Your task to perform on an android device: turn off smart reply in the gmail app Image 0: 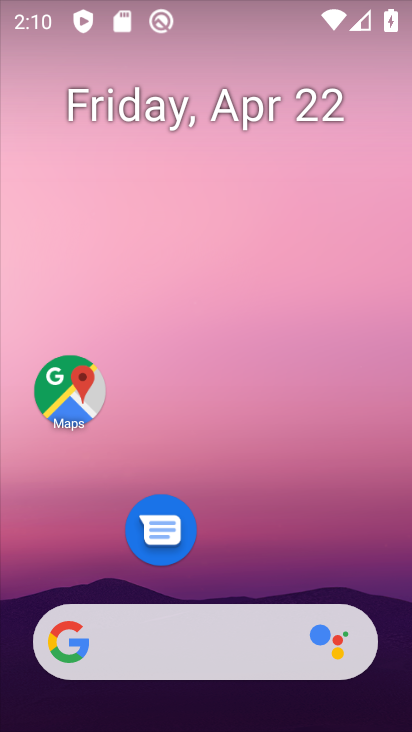
Step 0: drag from (248, 558) to (332, 5)
Your task to perform on an android device: turn off smart reply in the gmail app Image 1: 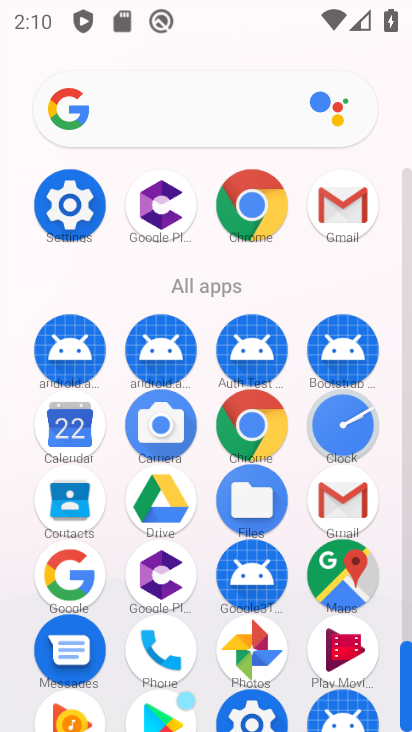
Step 1: click (354, 489)
Your task to perform on an android device: turn off smart reply in the gmail app Image 2: 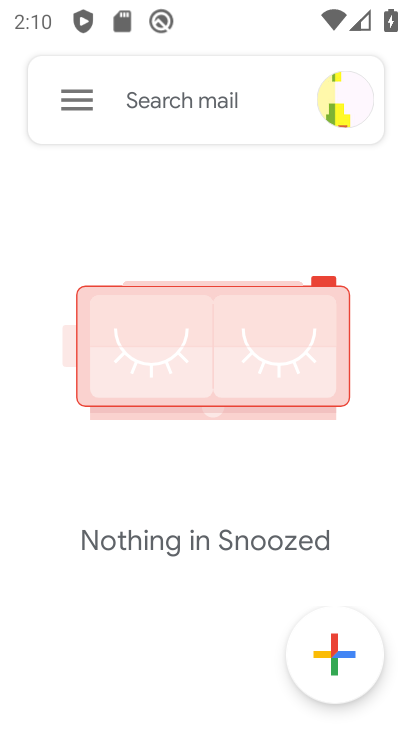
Step 2: click (70, 93)
Your task to perform on an android device: turn off smart reply in the gmail app Image 3: 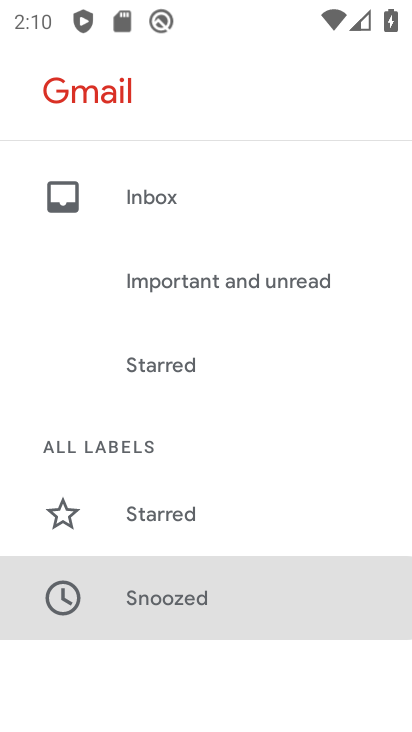
Step 3: drag from (157, 563) to (142, 153)
Your task to perform on an android device: turn off smart reply in the gmail app Image 4: 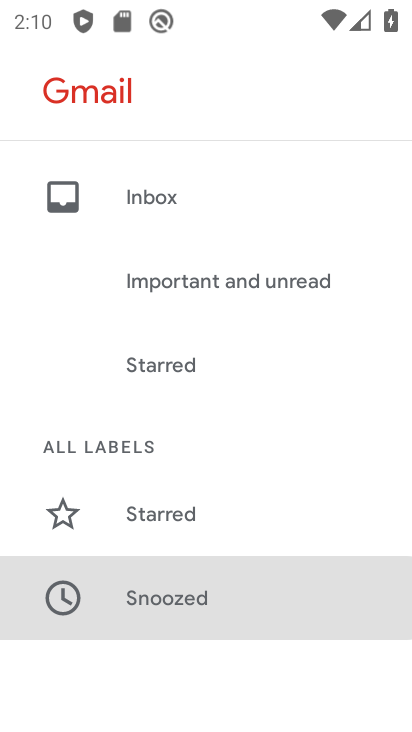
Step 4: drag from (212, 463) to (200, 53)
Your task to perform on an android device: turn off smart reply in the gmail app Image 5: 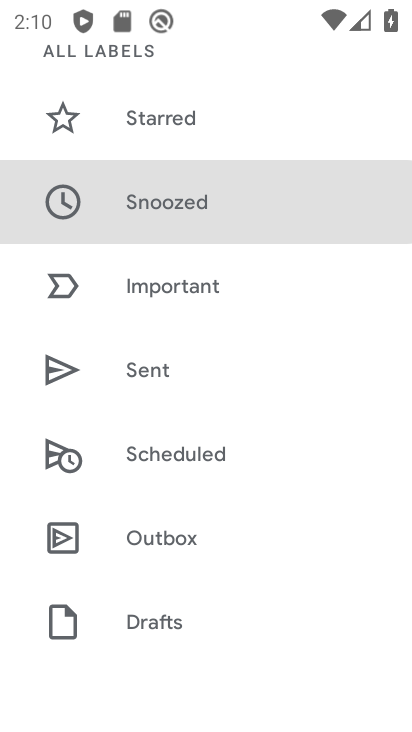
Step 5: drag from (161, 547) to (188, 22)
Your task to perform on an android device: turn off smart reply in the gmail app Image 6: 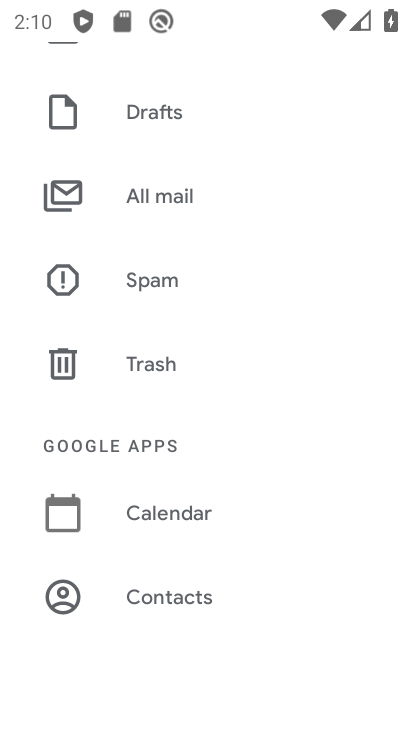
Step 6: drag from (181, 547) to (172, 114)
Your task to perform on an android device: turn off smart reply in the gmail app Image 7: 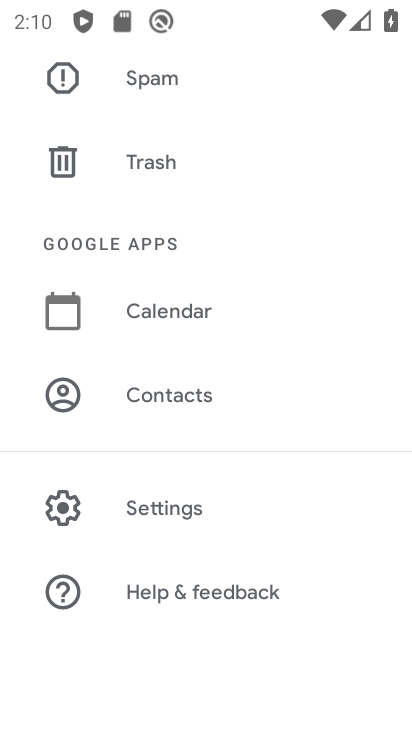
Step 7: click (162, 504)
Your task to perform on an android device: turn off smart reply in the gmail app Image 8: 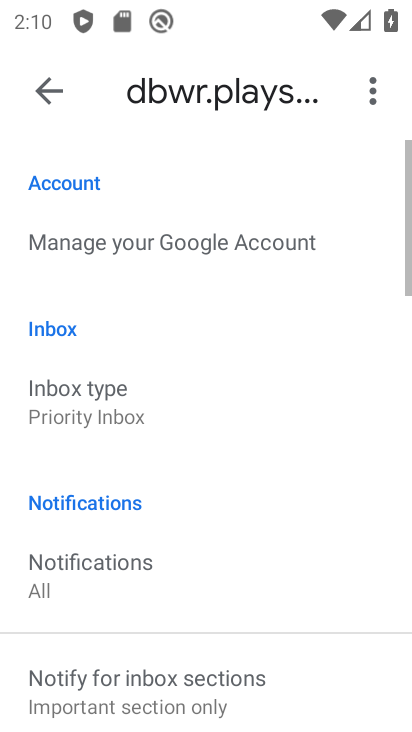
Step 8: drag from (208, 528) to (209, 110)
Your task to perform on an android device: turn off smart reply in the gmail app Image 9: 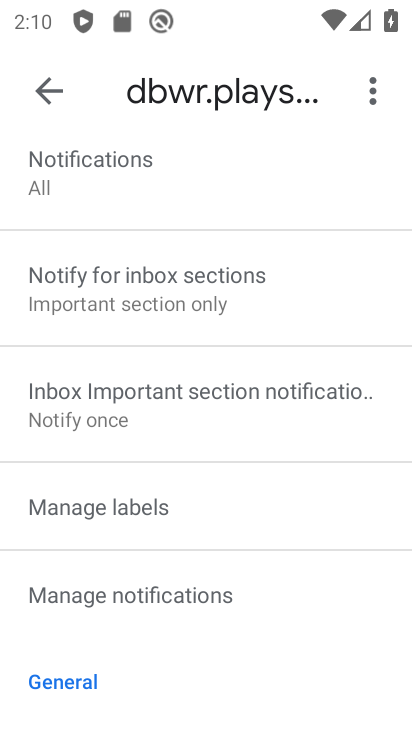
Step 9: drag from (223, 530) to (175, 2)
Your task to perform on an android device: turn off smart reply in the gmail app Image 10: 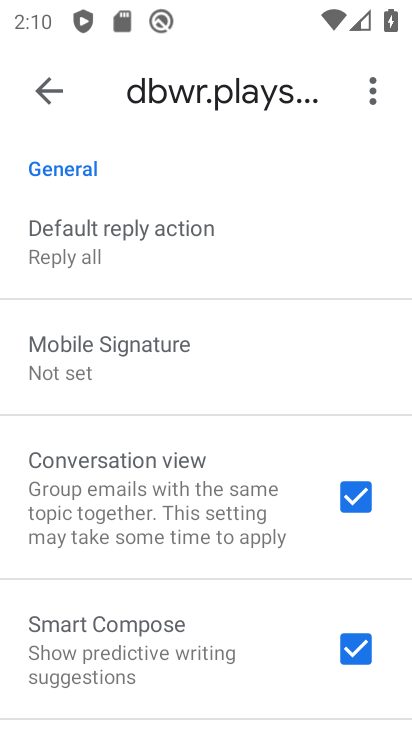
Step 10: drag from (203, 564) to (210, 161)
Your task to perform on an android device: turn off smart reply in the gmail app Image 11: 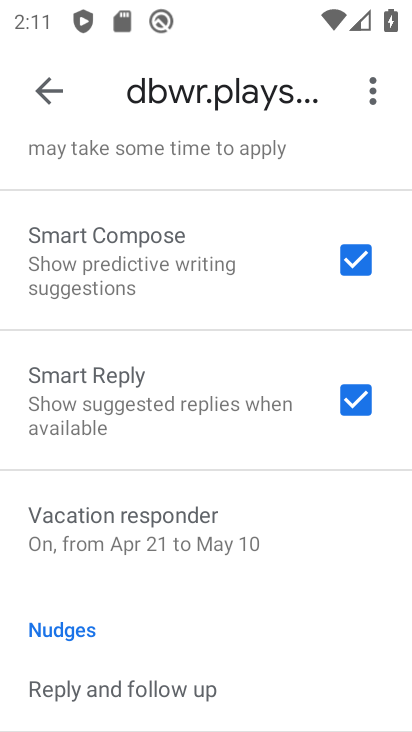
Step 11: click (358, 392)
Your task to perform on an android device: turn off smart reply in the gmail app Image 12: 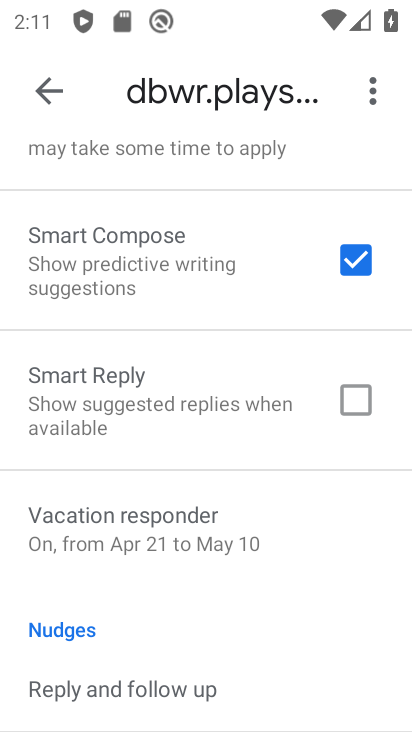
Step 12: task complete